Your task to perform on an android device: Go to notification settings Image 0: 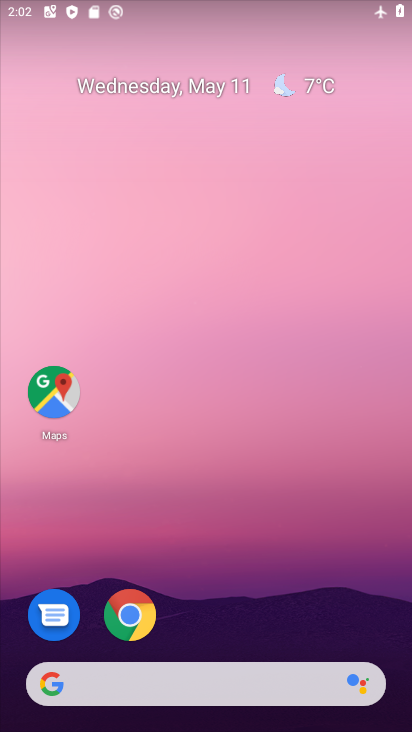
Step 0: drag from (299, 583) to (295, 73)
Your task to perform on an android device: Go to notification settings Image 1: 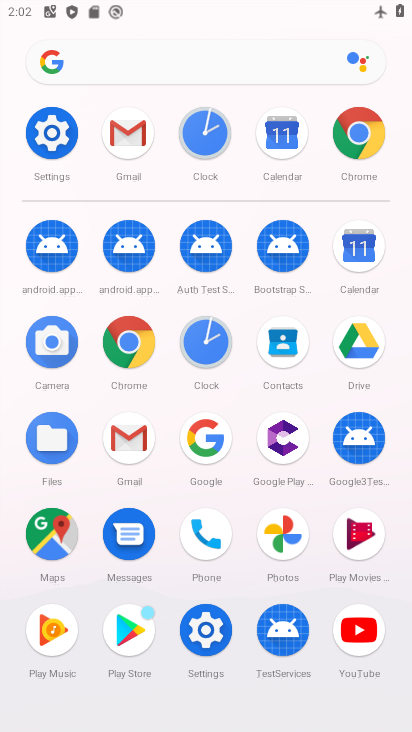
Step 1: click (67, 126)
Your task to perform on an android device: Go to notification settings Image 2: 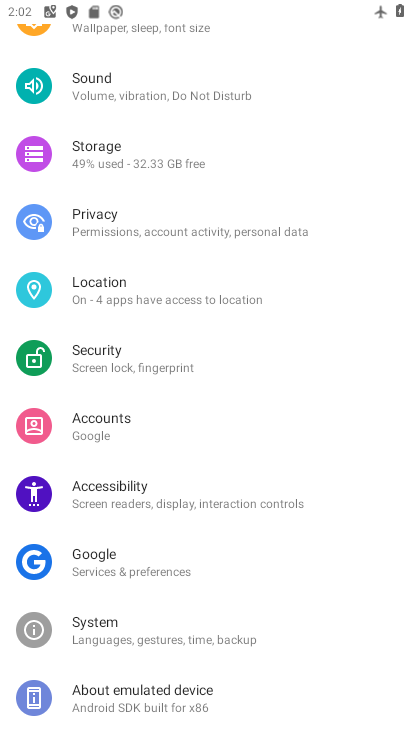
Step 2: drag from (255, 177) to (285, 614)
Your task to perform on an android device: Go to notification settings Image 3: 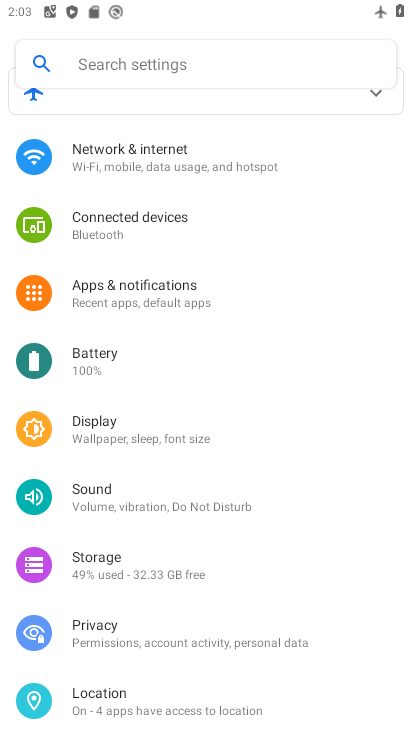
Step 3: click (110, 290)
Your task to perform on an android device: Go to notification settings Image 4: 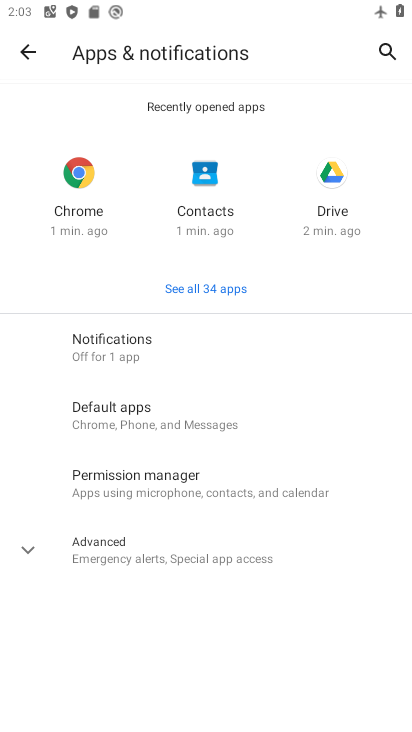
Step 4: click (172, 349)
Your task to perform on an android device: Go to notification settings Image 5: 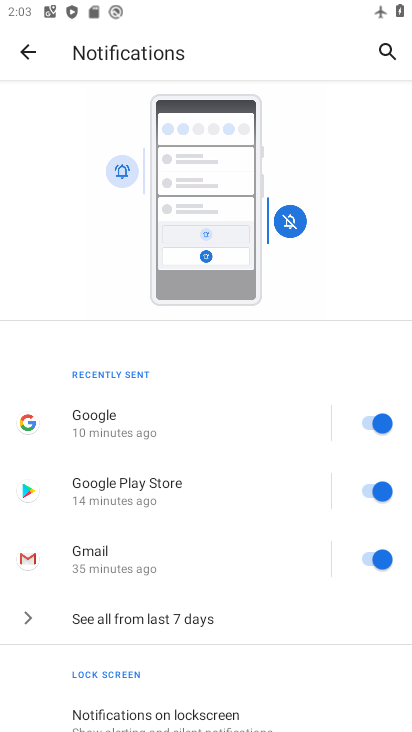
Step 5: task complete